Your task to perform on an android device: turn off location Image 0: 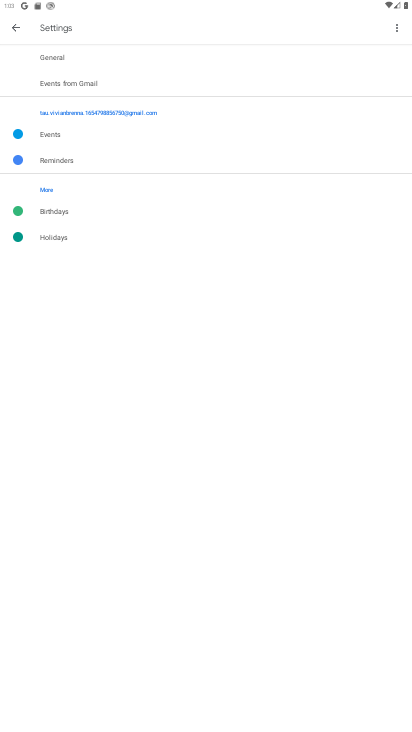
Step 0: press home button
Your task to perform on an android device: turn off location Image 1: 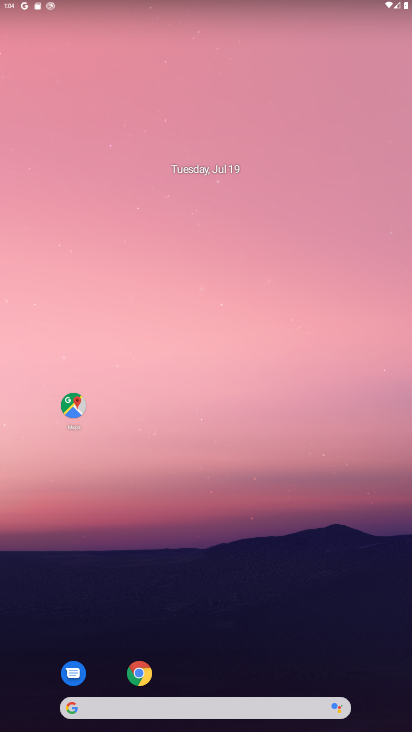
Step 1: drag from (186, 714) to (312, 8)
Your task to perform on an android device: turn off location Image 2: 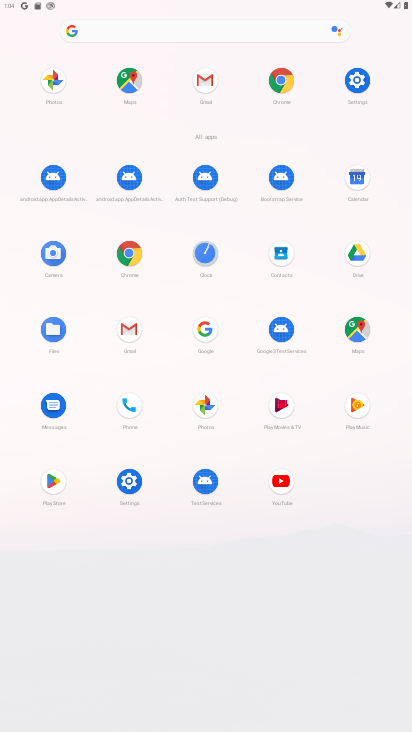
Step 2: click (368, 75)
Your task to perform on an android device: turn off location Image 3: 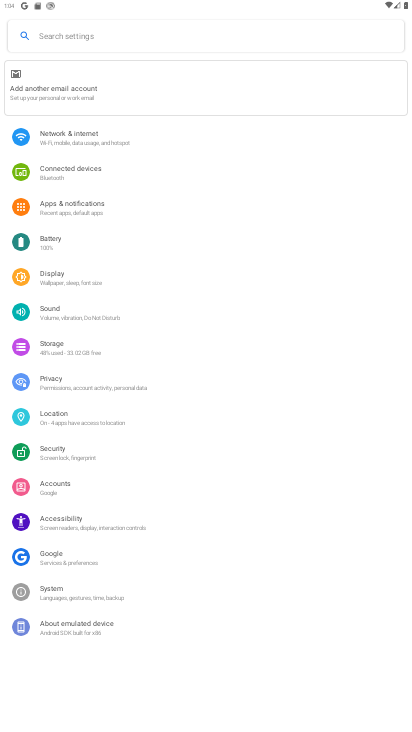
Step 3: click (96, 420)
Your task to perform on an android device: turn off location Image 4: 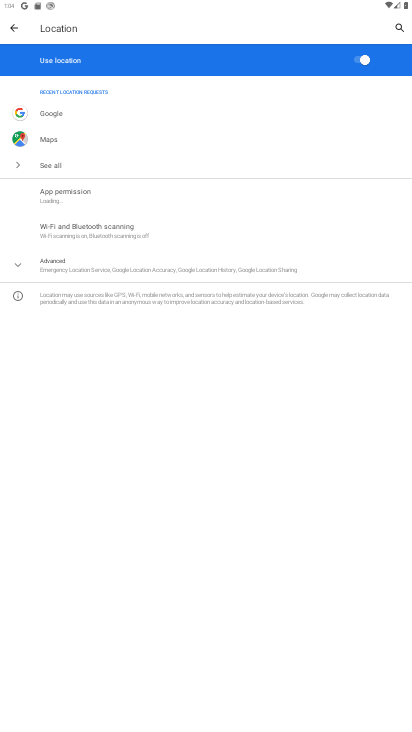
Step 4: click (360, 57)
Your task to perform on an android device: turn off location Image 5: 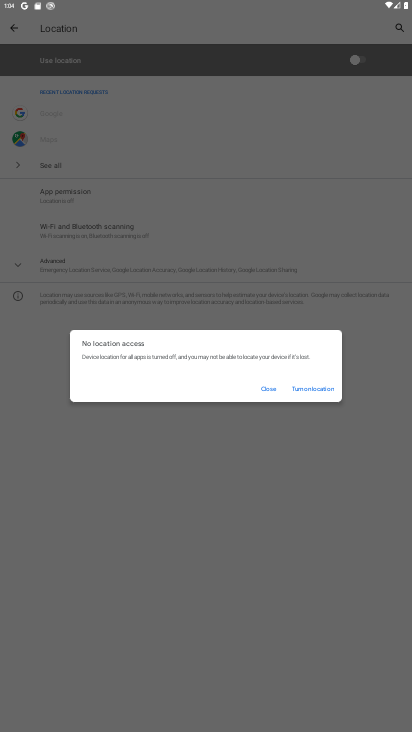
Step 5: click (268, 387)
Your task to perform on an android device: turn off location Image 6: 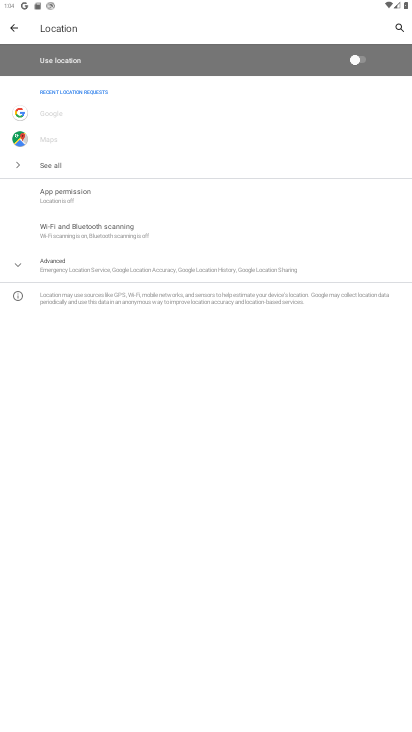
Step 6: task complete